Your task to perform on an android device: set the timer Image 0: 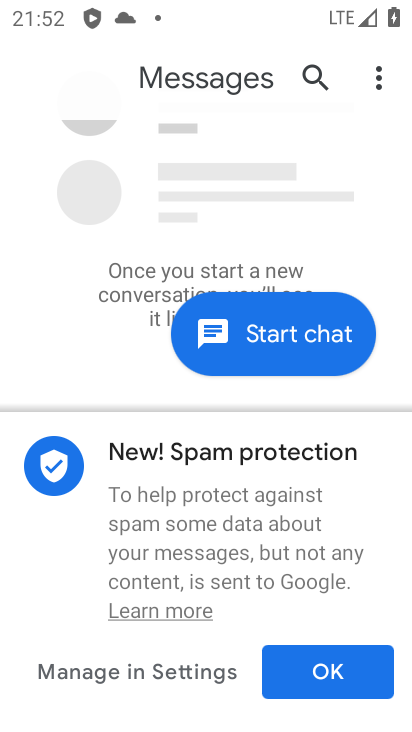
Step 0: press home button
Your task to perform on an android device: set the timer Image 1: 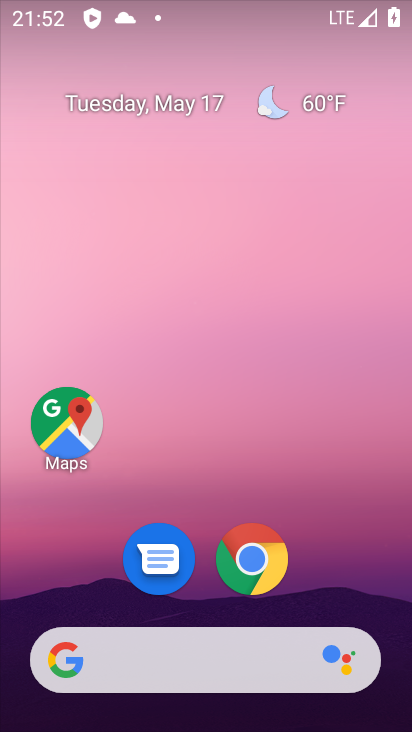
Step 1: drag from (331, 410) to (378, 7)
Your task to perform on an android device: set the timer Image 2: 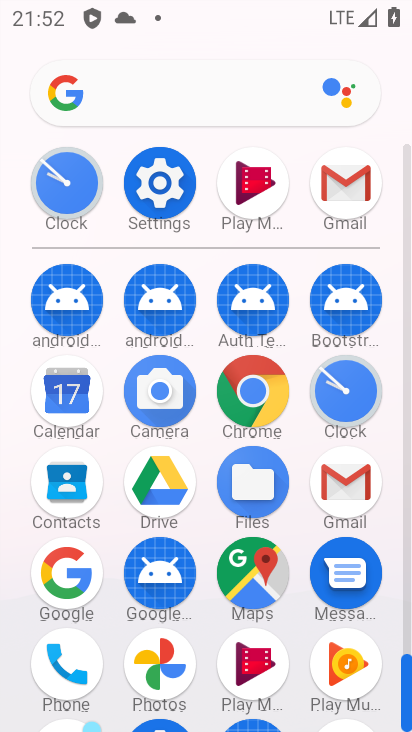
Step 2: click (340, 403)
Your task to perform on an android device: set the timer Image 3: 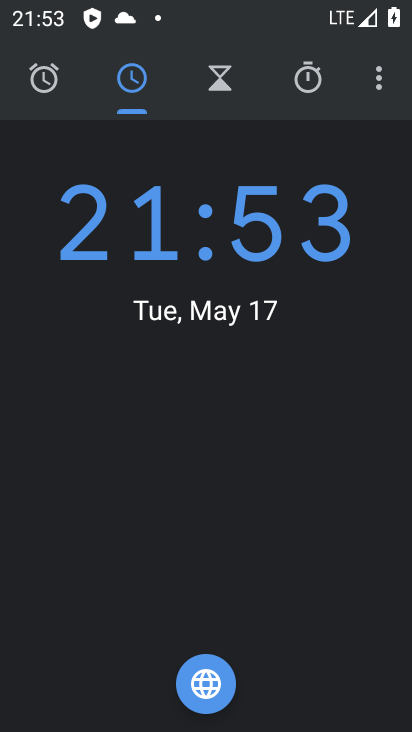
Step 3: click (225, 91)
Your task to perform on an android device: set the timer Image 4: 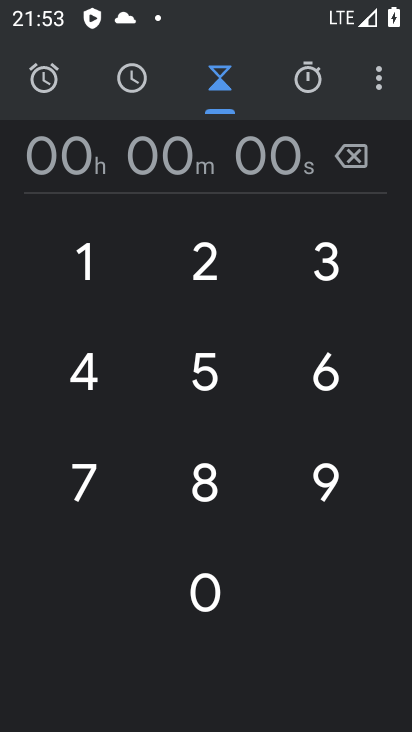
Step 4: click (204, 370)
Your task to perform on an android device: set the timer Image 5: 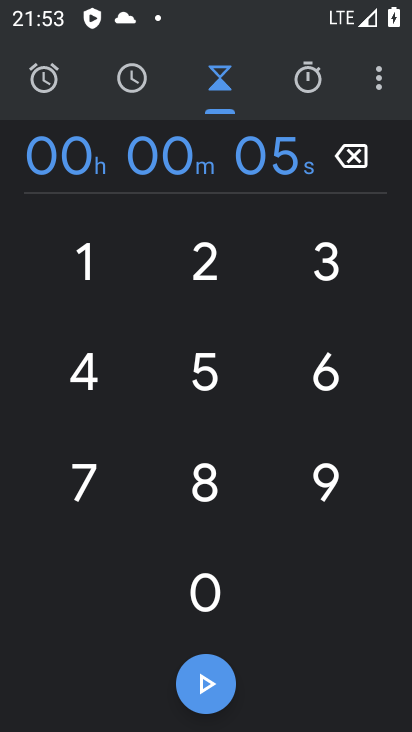
Step 5: task complete